Your task to perform on an android device: open a bookmark in the chrome app Image 0: 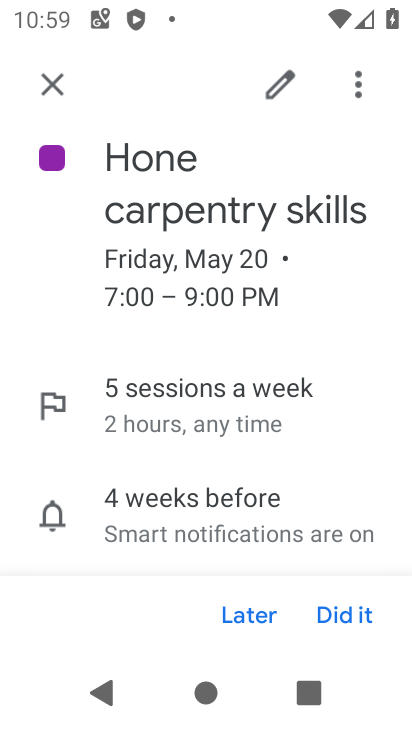
Step 0: press home button
Your task to perform on an android device: open a bookmark in the chrome app Image 1: 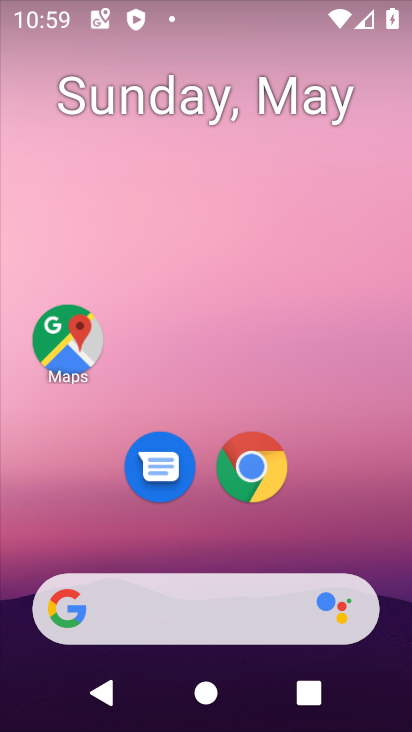
Step 1: click (260, 469)
Your task to perform on an android device: open a bookmark in the chrome app Image 2: 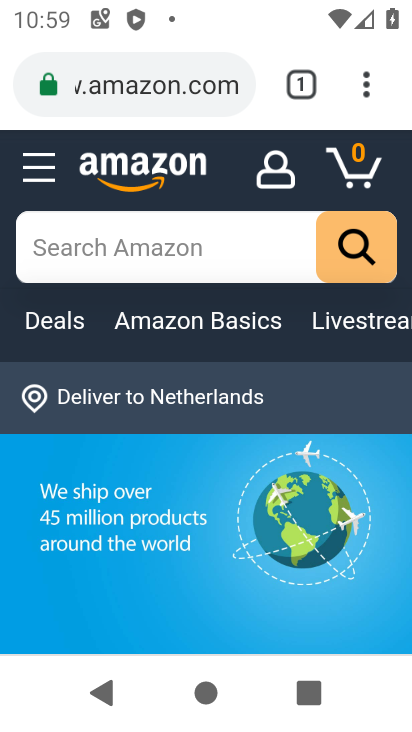
Step 2: click (364, 79)
Your task to perform on an android device: open a bookmark in the chrome app Image 3: 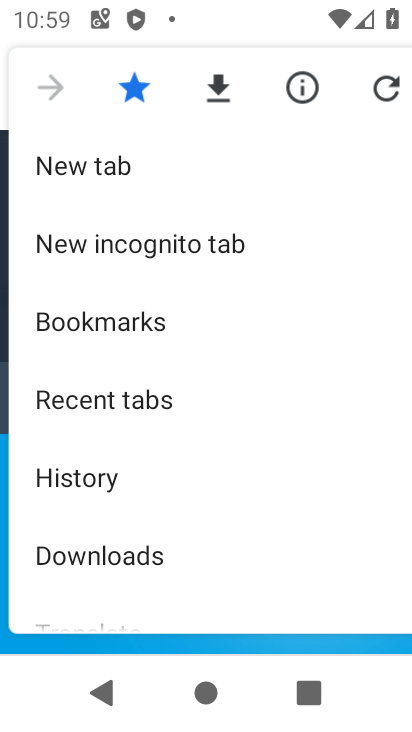
Step 3: click (57, 323)
Your task to perform on an android device: open a bookmark in the chrome app Image 4: 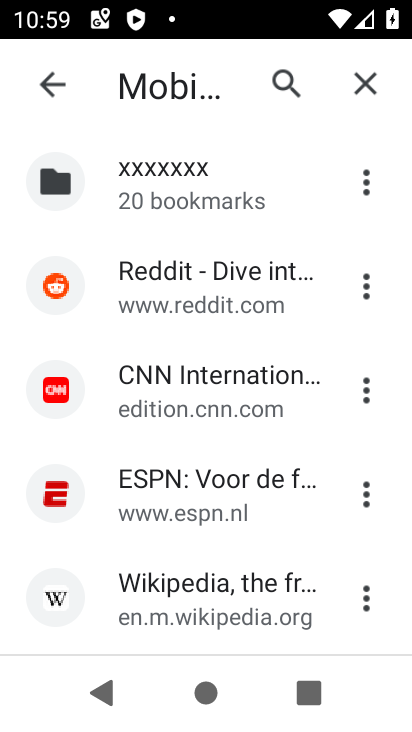
Step 4: click (184, 407)
Your task to perform on an android device: open a bookmark in the chrome app Image 5: 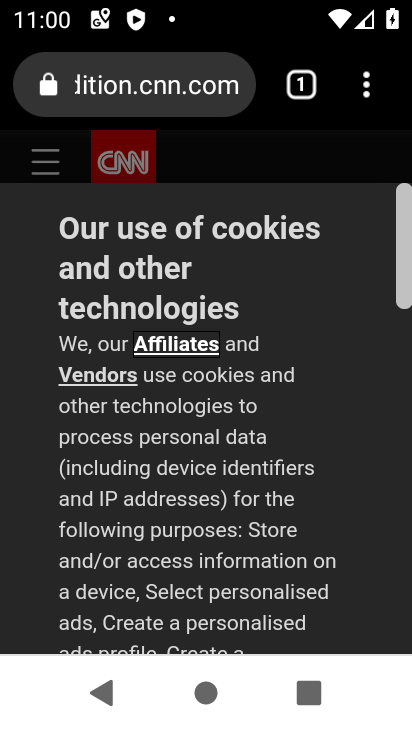
Step 5: task complete